Your task to perform on an android device: turn notification dots off Image 0: 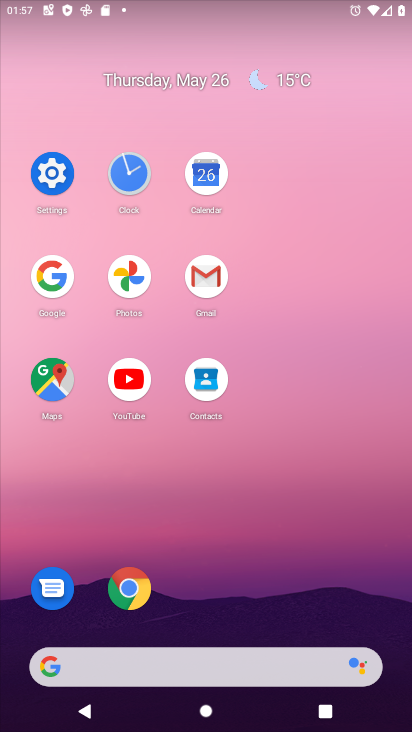
Step 0: click (55, 178)
Your task to perform on an android device: turn notification dots off Image 1: 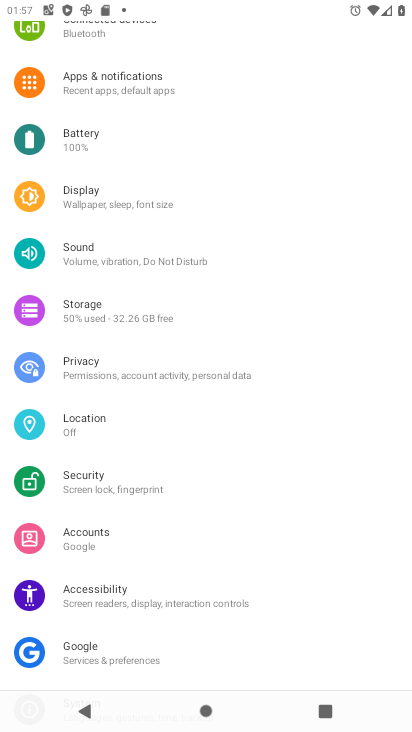
Step 1: click (146, 95)
Your task to perform on an android device: turn notification dots off Image 2: 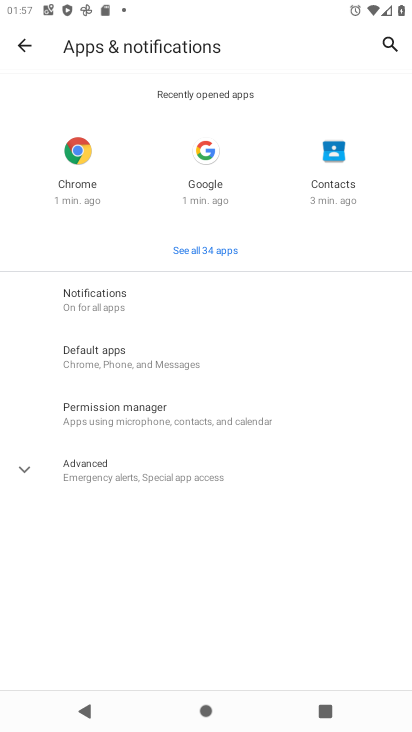
Step 2: click (158, 319)
Your task to perform on an android device: turn notification dots off Image 3: 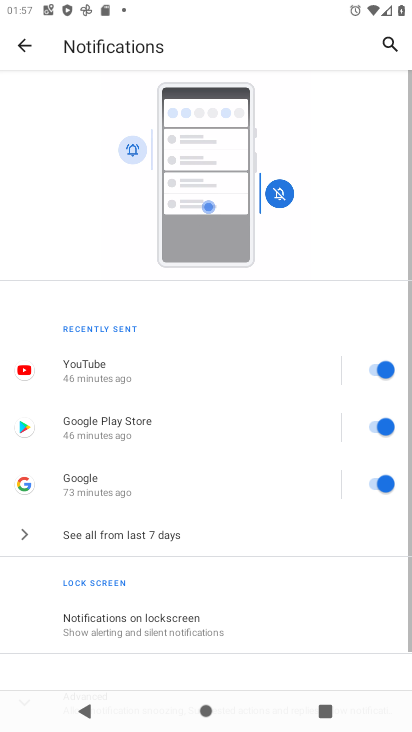
Step 3: drag from (156, 548) to (107, 242)
Your task to perform on an android device: turn notification dots off Image 4: 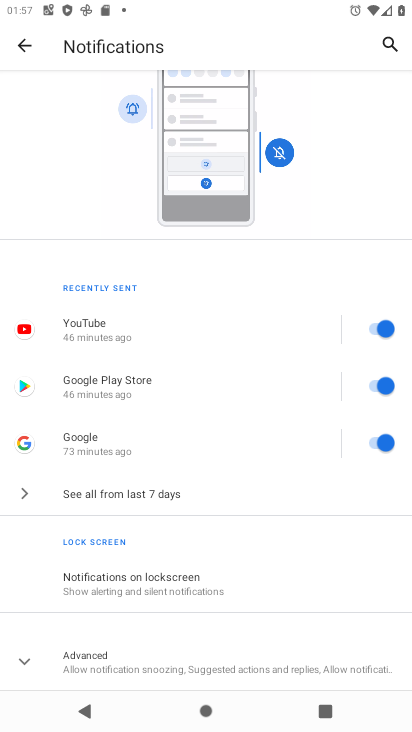
Step 4: click (184, 670)
Your task to perform on an android device: turn notification dots off Image 5: 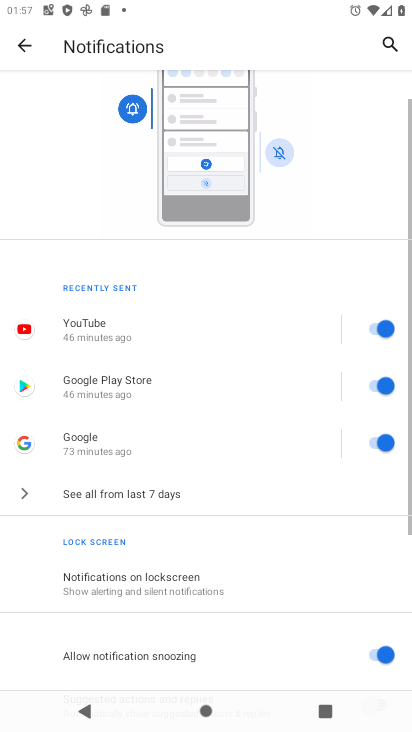
Step 5: task complete